Your task to perform on an android device: Open the map Image 0: 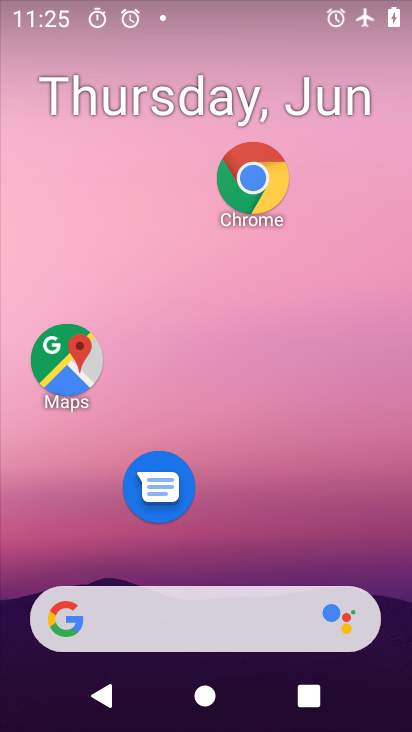
Step 0: drag from (241, 725) to (241, 89)
Your task to perform on an android device: Open the map Image 1: 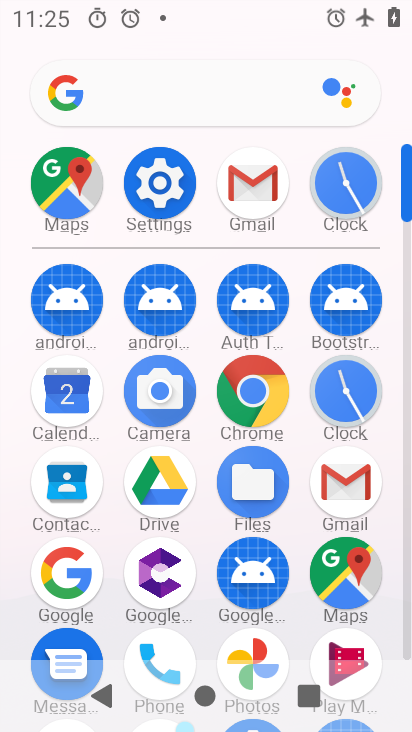
Step 1: click (346, 571)
Your task to perform on an android device: Open the map Image 2: 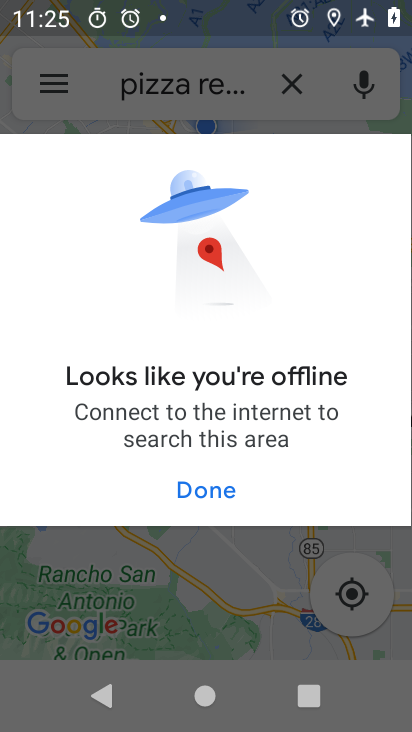
Step 2: click (215, 490)
Your task to perform on an android device: Open the map Image 3: 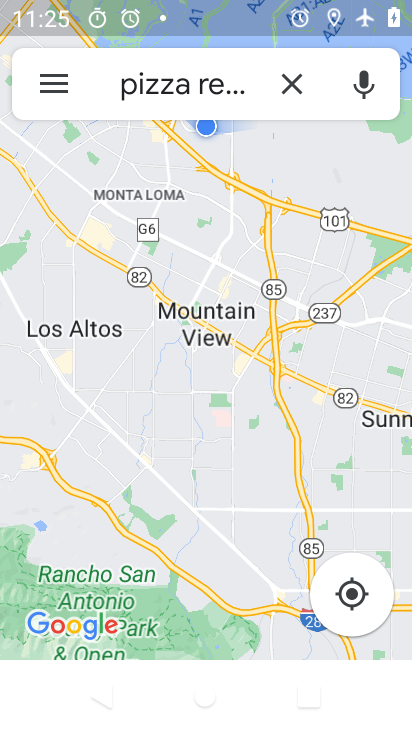
Step 3: task complete